Your task to perform on an android device: change notifications settings Image 0: 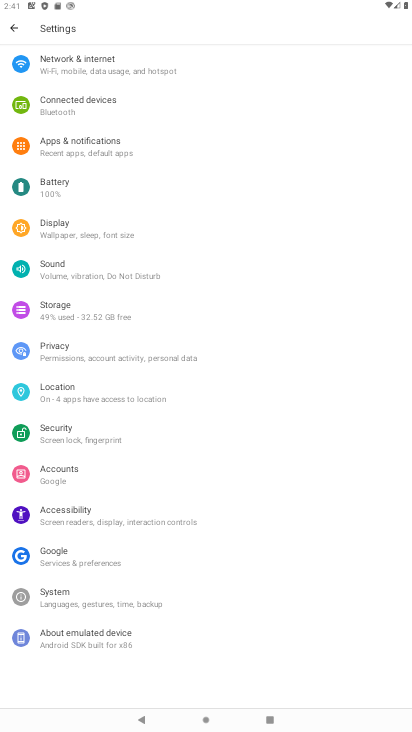
Step 0: click (112, 148)
Your task to perform on an android device: change notifications settings Image 1: 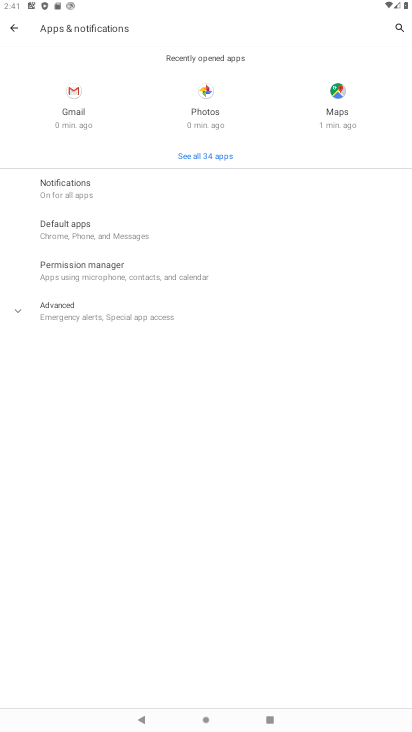
Step 1: click (90, 196)
Your task to perform on an android device: change notifications settings Image 2: 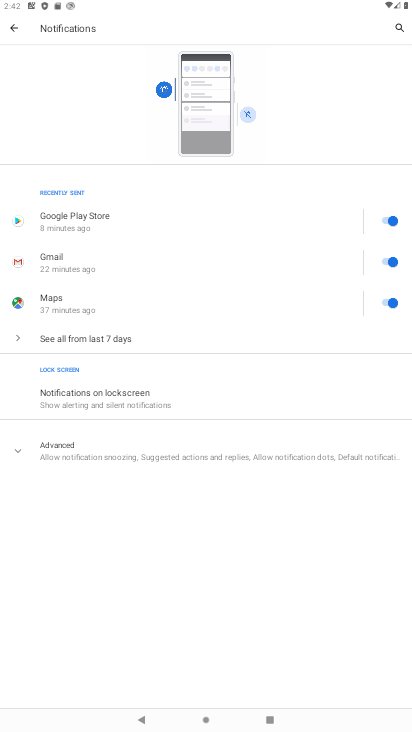
Step 2: task complete